Your task to perform on an android device: turn on data saver in the chrome app Image 0: 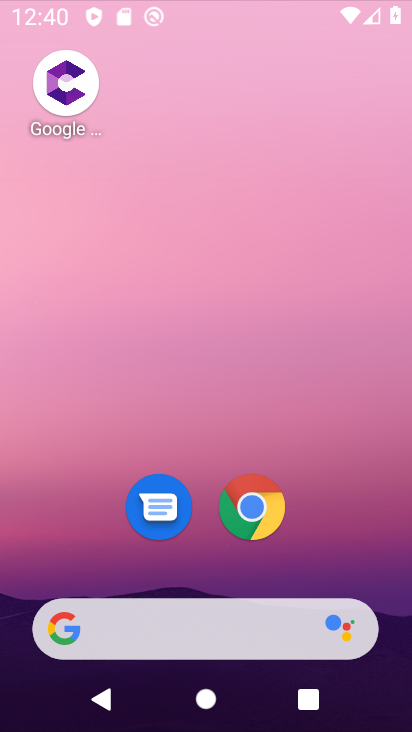
Step 0: drag from (277, 0) to (252, 326)
Your task to perform on an android device: turn on data saver in the chrome app Image 1: 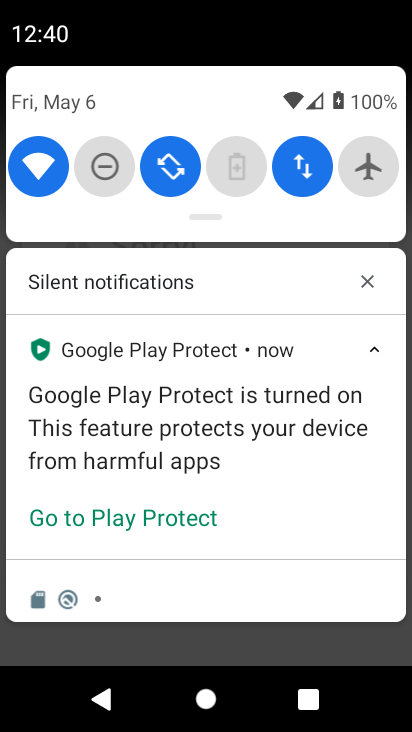
Step 1: press home button
Your task to perform on an android device: turn on data saver in the chrome app Image 2: 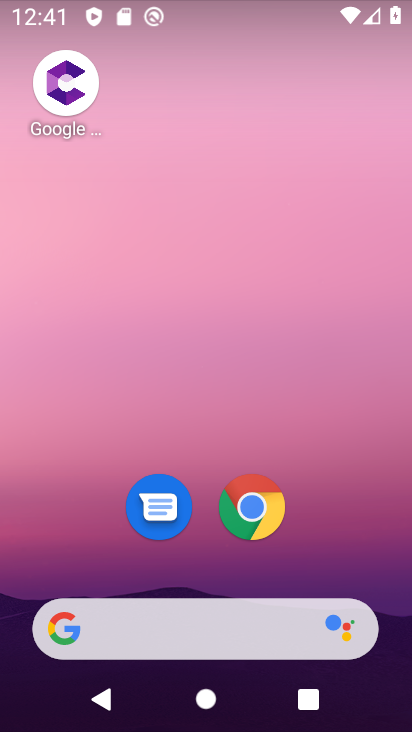
Step 2: drag from (62, 594) to (181, 3)
Your task to perform on an android device: turn on data saver in the chrome app Image 3: 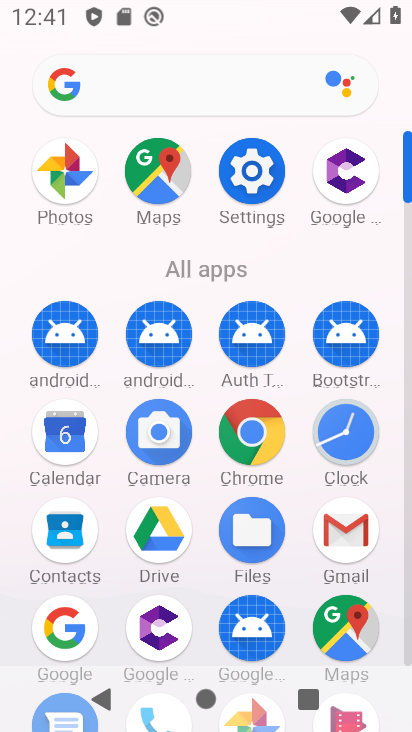
Step 3: drag from (123, 596) to (240, 247)
Your task to perform on an android device: turn on data saver in the chrome app Image 4: 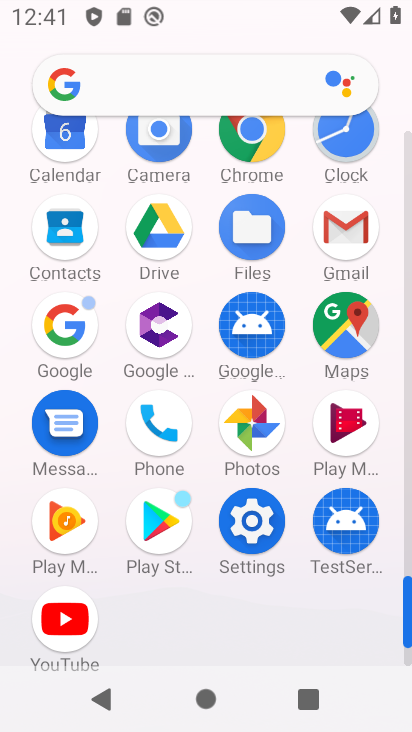
Step 4: click (260, 133)
Your task to perform on an android device: turn on data saver in the chrome app Image 5: 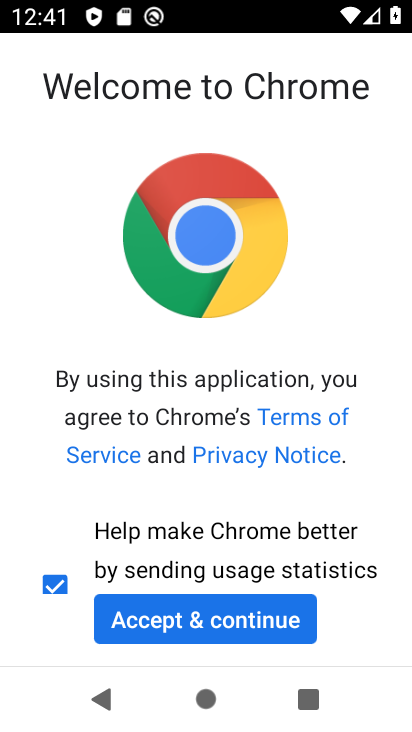
Step 5: click (216, 629)
Your task to perform on an android device: turn on data saver in the chrome app Image 6: 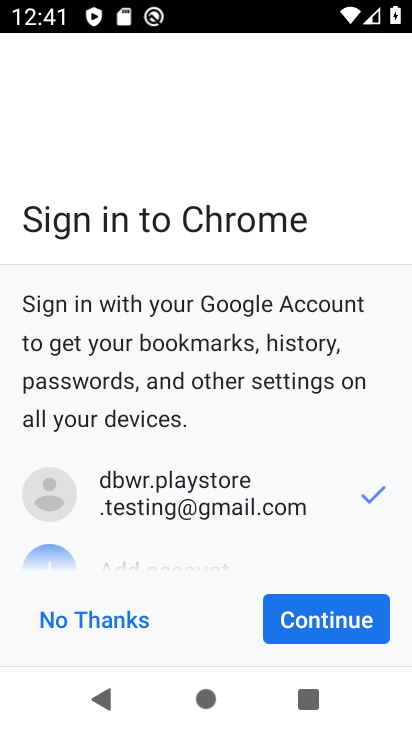
Step 6: click (310, 620)
Your task to perform on an android device: turn on data saver in the chrome app Image 7: 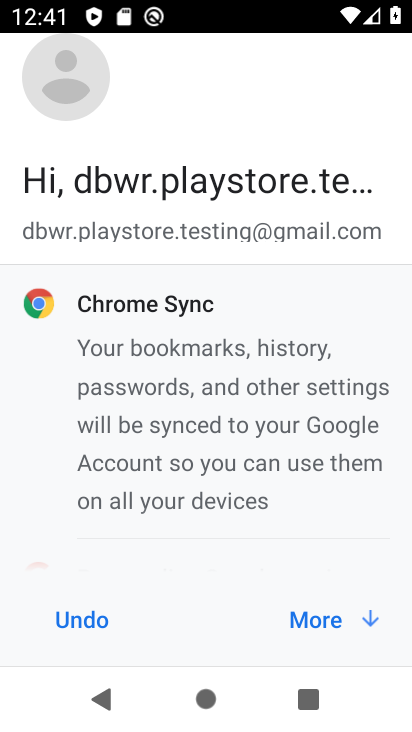
Step 7: click (310, 621)
Your task to perform on an android device: turn on data saver in the chrome app Image 8: 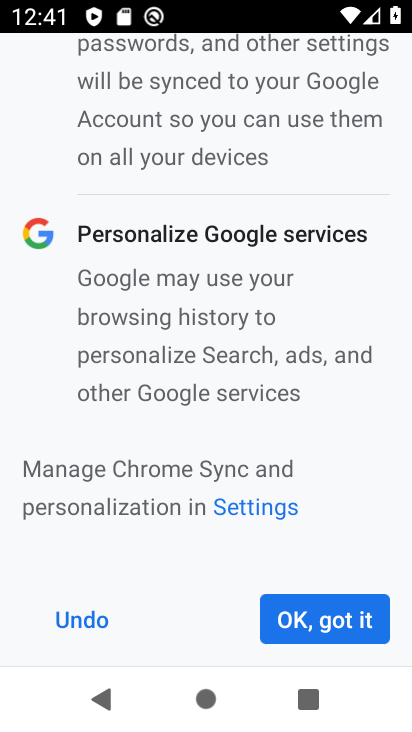
Step 8: click (310, 621)
Your task to perform on an android device: turn on data saver in the chrome app Image 9: 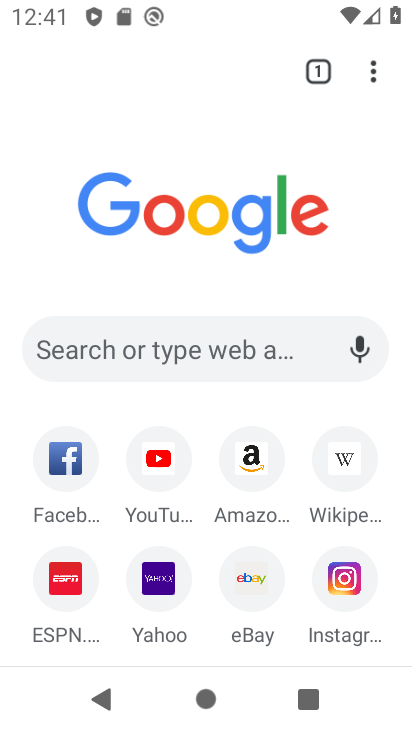
Step 9: drag from (379, 82) to (276, 509)
Your task to perform on an android device: turn on data saver in the chrome app Image 10: 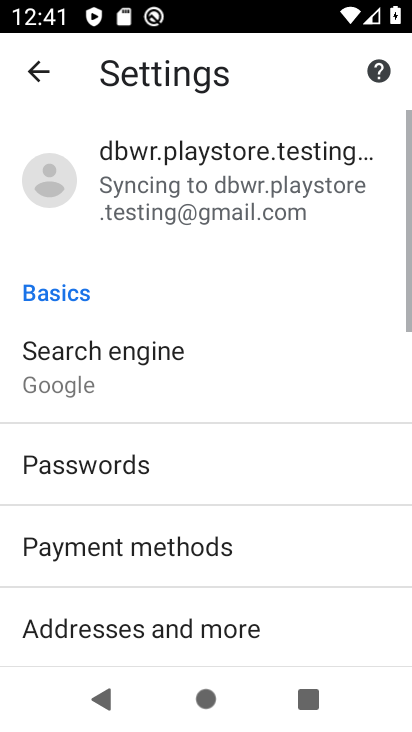
Step 10: drag from (167, 598) to (286, 126)
Your task to perform on an android device: turn on data saver in the chrome app Image 11: 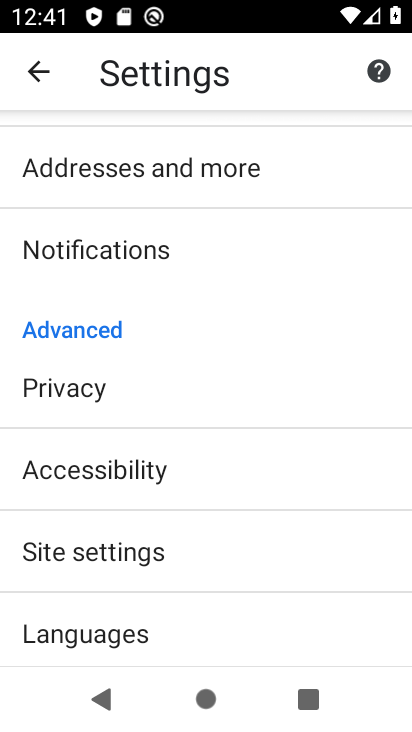
Step 11: drag from (180, 565) to (279, 242)
Your task to perform on an android device: turn on data saver in the chrome app Image 12: 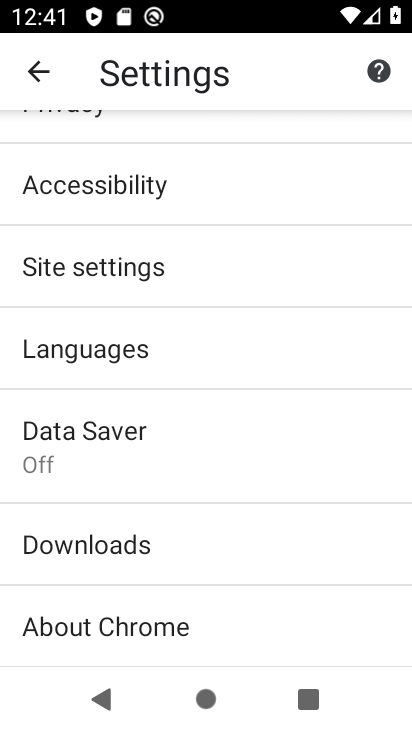
Step 12: click (172, 416)
Your task to perform on an android device: turn on data saver in the chrome app Image 13: 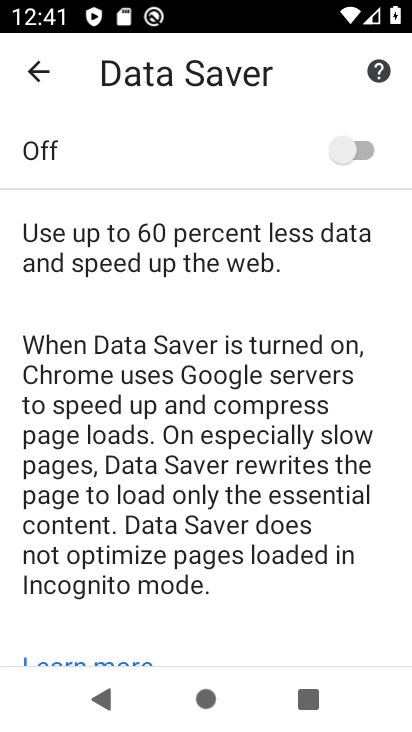
Step 13: click (379, 140)
Your task to perform on an android device: turn on data saver in the chrome app Image 14: 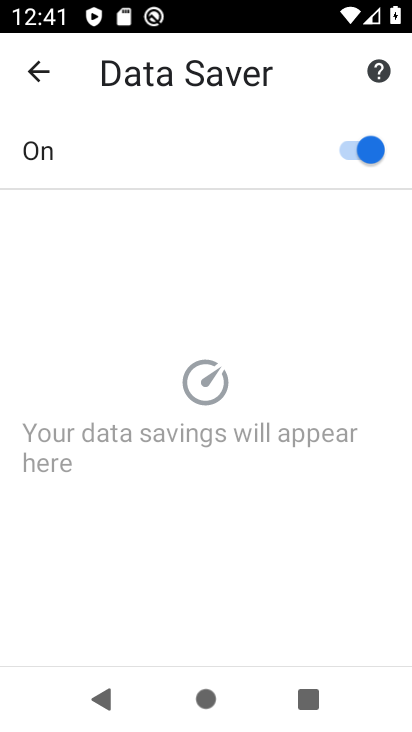
Step 14: task complete